Your task to perform on an android device: Is it going to rain this weekend? Image 0: 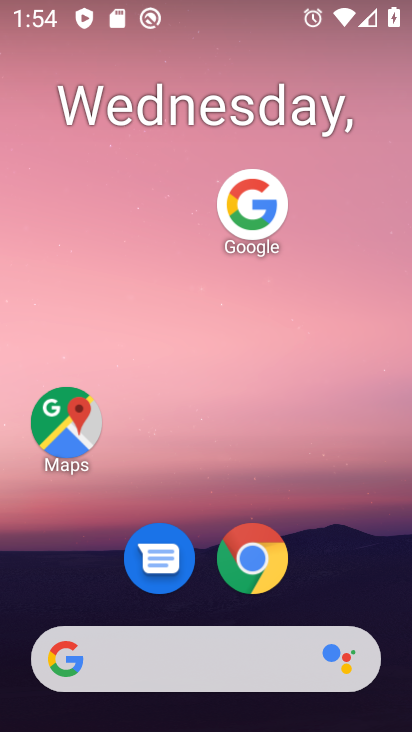
Step 0: drag from (399, 596) to (353, 260)
Your task to perform on an android device: Is it going to rain this weekend? Image 1: 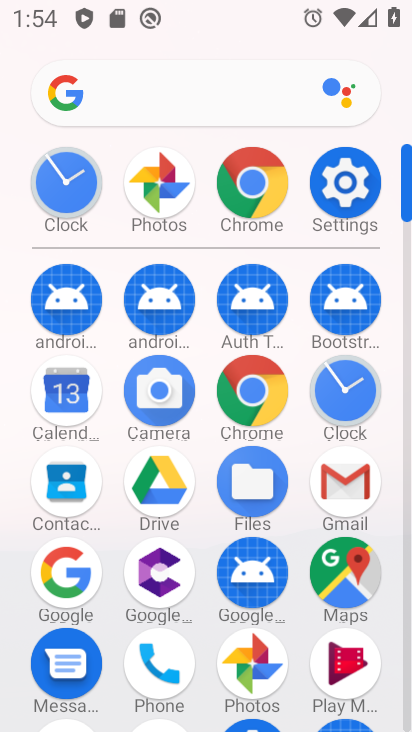
Step 1: click (259, 171)
Your task to perform on an android device: Is it going to rain this weekend? Image 2: 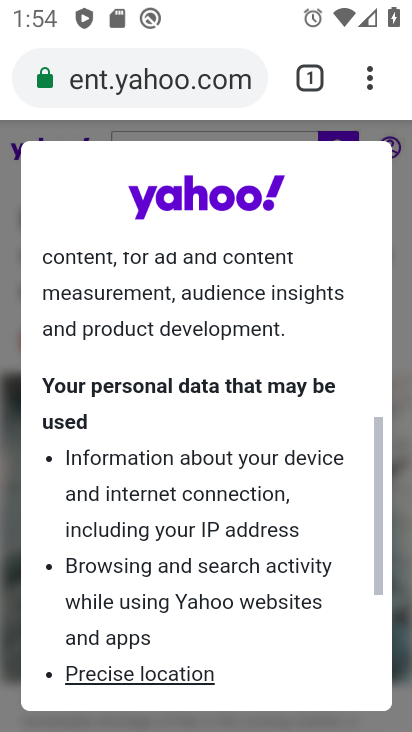
Step 2: click (238, 80)
Your task to perform on an android device: Is it going to rain this weekend? Image 3: 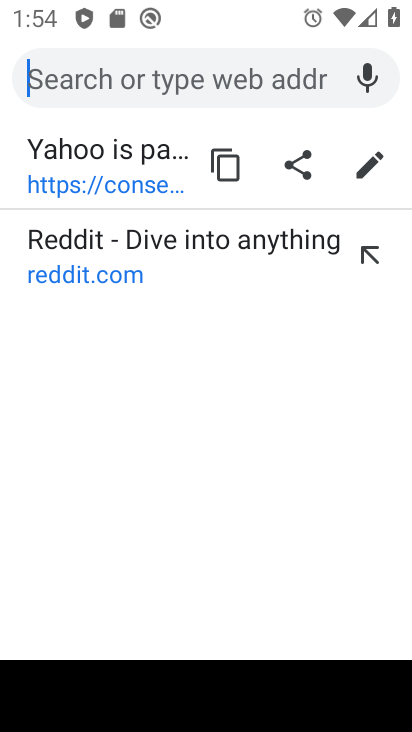
Step 3: type "Is it going to rain this weekend?"
Your task to perform on an android device: Is it going to rain this weekend? Image 4: 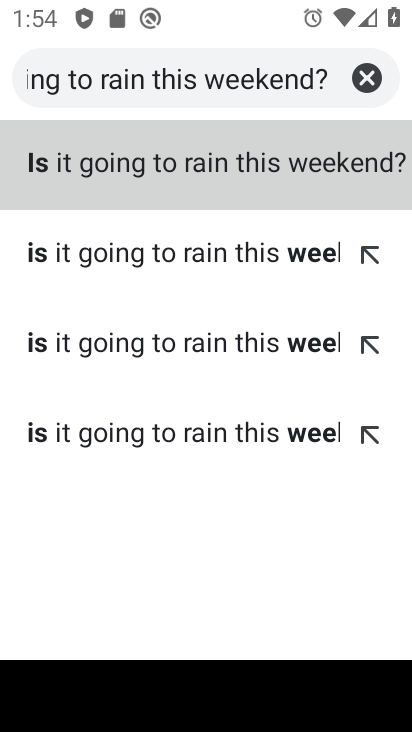
Step 4: click (359, 169)
Your task to perform on an android device: Is it going to rain this weekend? Image 5: 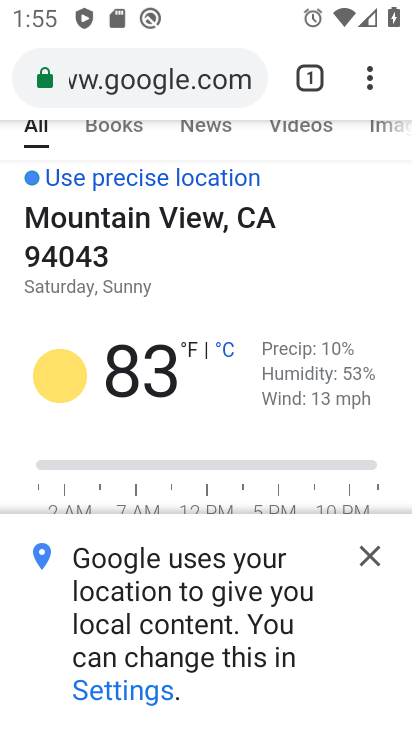
Step 5: click (378, 551)
Your task to perform on an android device: Is it going to rain this weekend? Image 6: 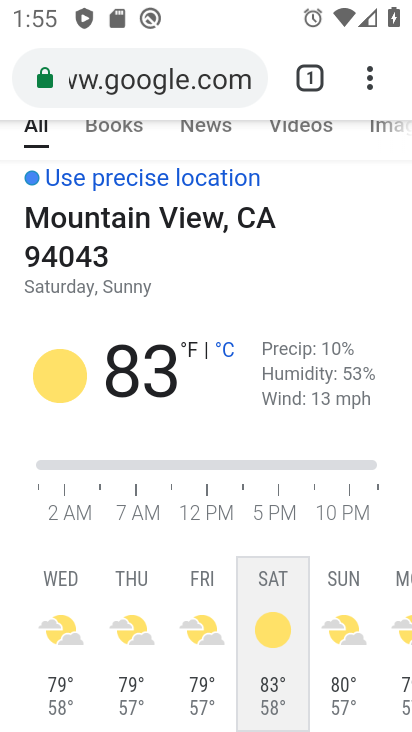
Step 6: task complete